Your task to perform on an android device: toggle wifi Image 0: 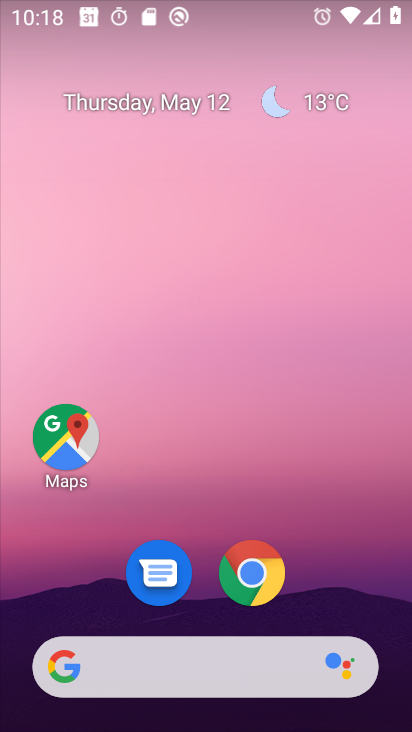
Step 0: drag from (399, 662) to (398, 233)
Your task to perform on an android device: toggle wifi Image 1: 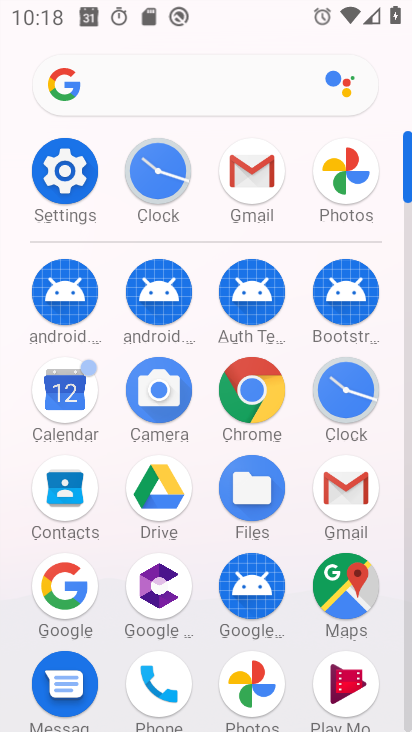
Step 1: click (48, 168)
Your task to perform on an android device: toggle wifi Image 2: 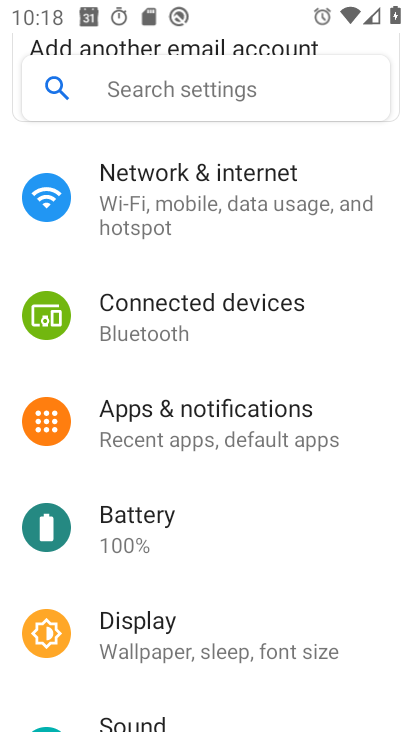
Step 2: click (149, 193)
Your task to perform on an android device: toggle wifi Image 3: 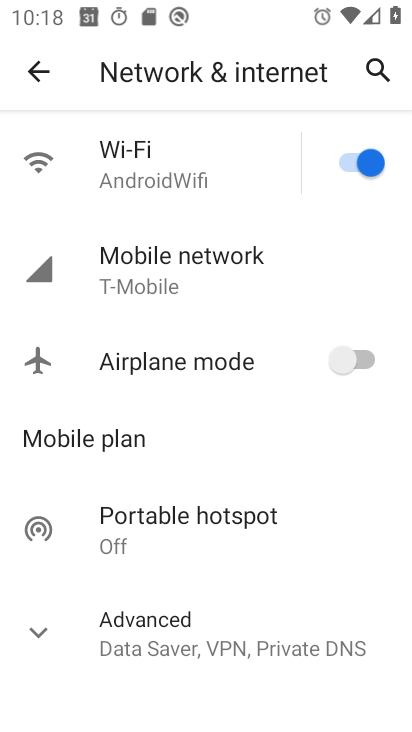
Step 3: click (344, 153)
Your task to perform on an android device: toggle wifi Image 4: 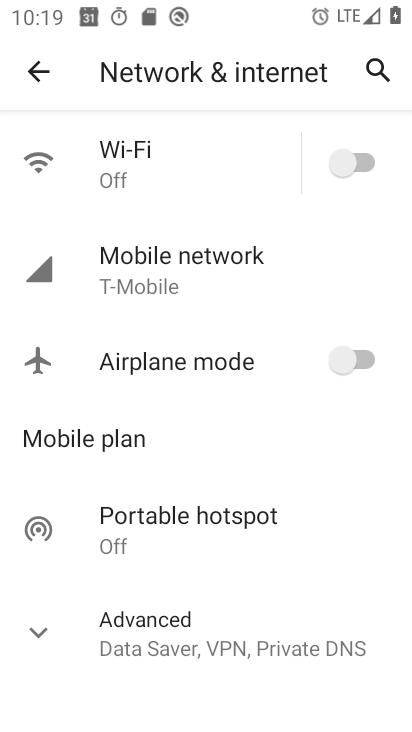
Step 4: task complete